Your task to perform on an android device: clear all cookies in the chrome app Image 0: 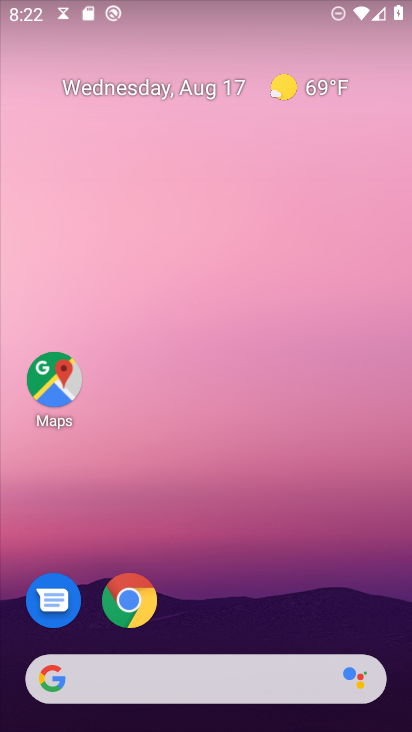
Step 0: press home button
Your task to perform on an android device: clear all cookies in the chrome app Image 1: 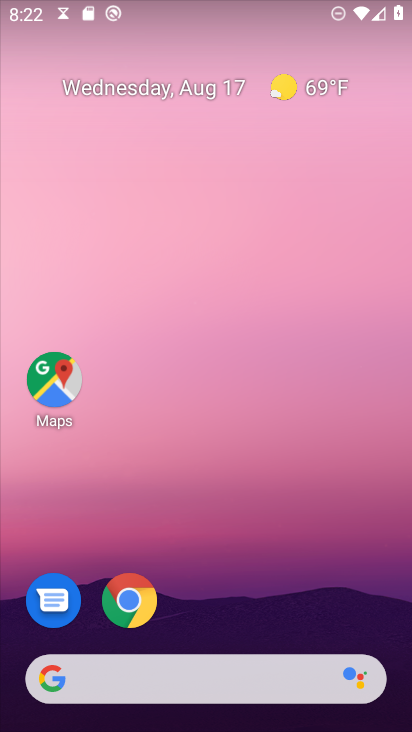
Step 1: click (141, 602)
Your task to perform on an android device: clear all cookies in the chrome app Image 2: 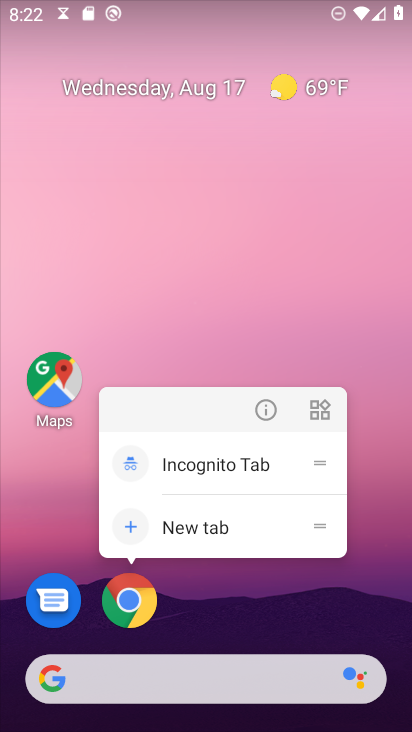
Step 2: click (143, 601)
Your task to perform on an android device: clear all cookies in the chrome app Image 3: 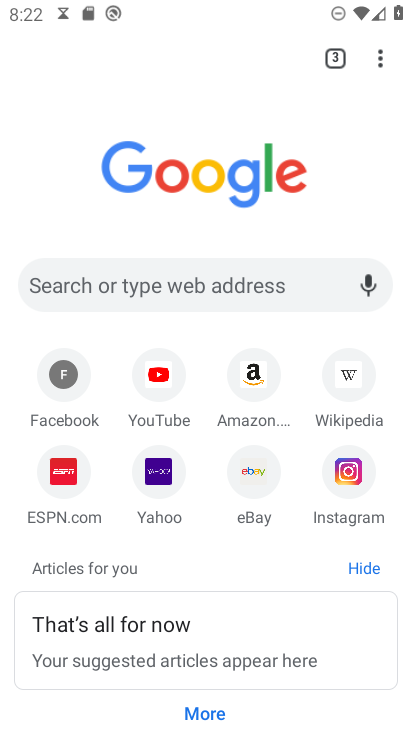
Step 3: drag from (375, 57) to (170, 486)
Your task to perform on an android device: clear all cookies in the chrome app Image 4: 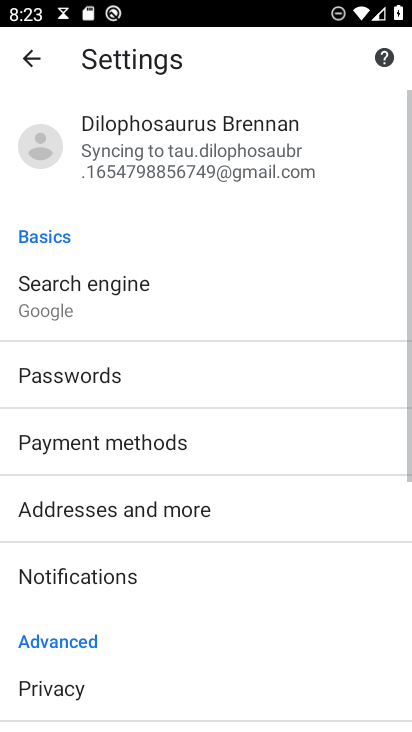
Step 4: drag from (223, 594) to (217, 176)
Your task to perform on an android device: clear all cookies in the chrome app Image 5: 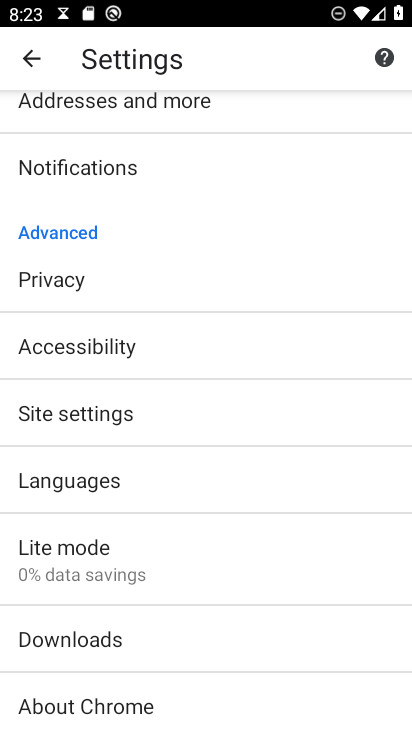
Step 5: click (96, 271)
Your task to perform on an android device: clear all cookies in the chrome app Image 6: 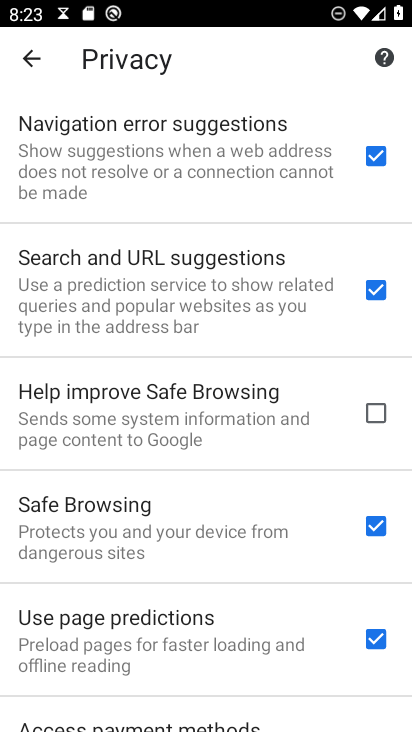
Step 6: drag from (240, 675) to (205, 246)
Your task to perform on an android device: clear all cookies in the chrome app Image 7: 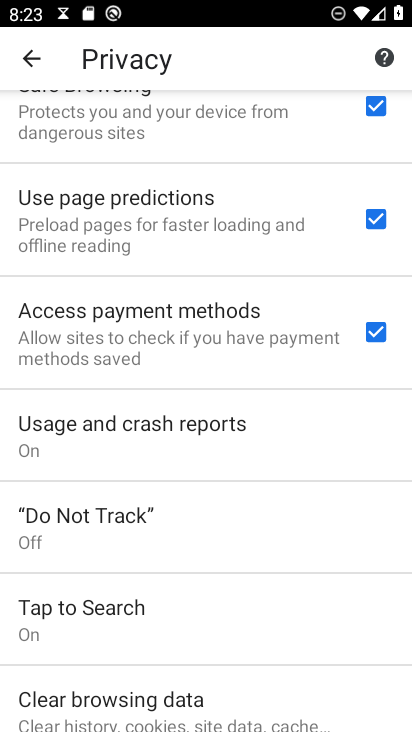
Step 7: click (163, 704)
Your task to perform on an android device: clear all cookies in the chrome app Image 8: 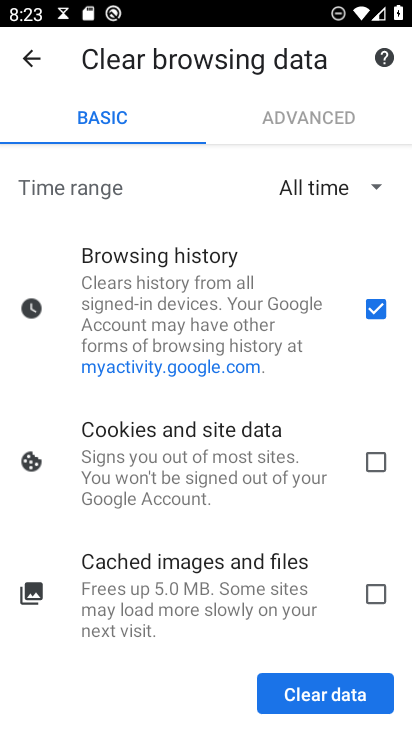
Step 8: click (368, 461)
Your task to perform on an android device: clear all cookies in the chrome app Image 9: 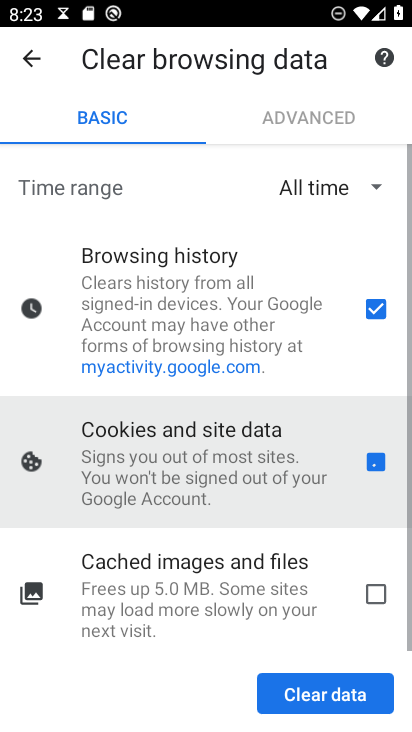
Step 9: click (369, 301)
Your task to perform on an android device: clear all cookies in the chrome app Image 10: 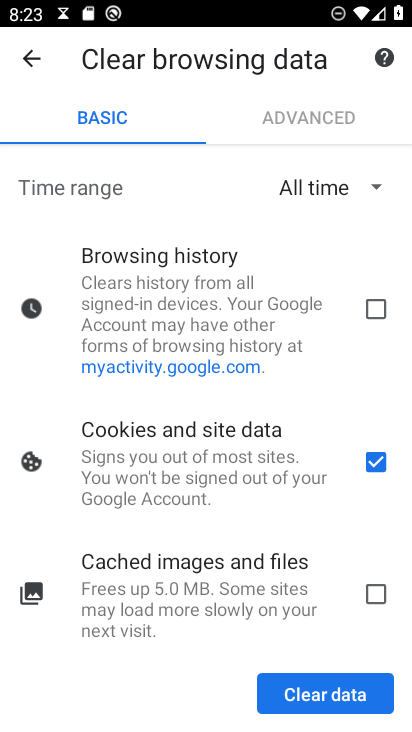
Step 10: click (359, 688)
Your task to perform on an android device: clear all cookies in the chrome app Image 11: 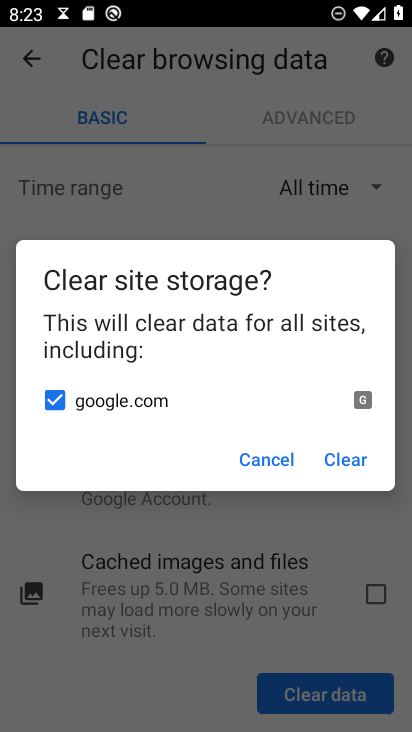
Step 11: click (335, 460)
Your task to perform on an android device: clear all cookies in the chrome app Image 12: 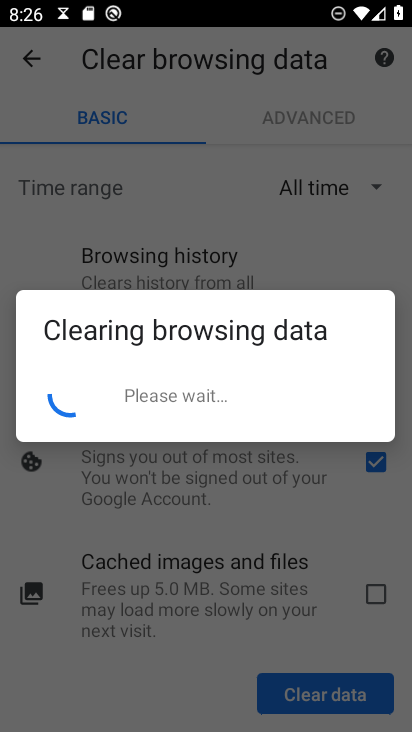
Step 12: click (376, 519)
Your task to perform on an android device: clear all cookies in the chrome app Image 13: 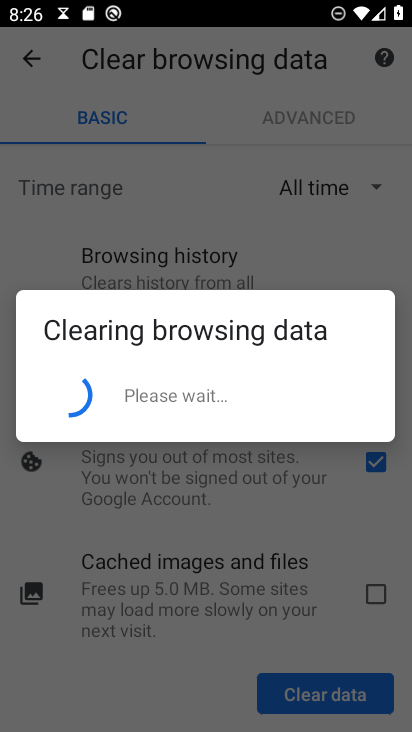
Step 13: click (309, 522)
Your task to perform on an android device: clear all cookies in the chrome app Image 14: 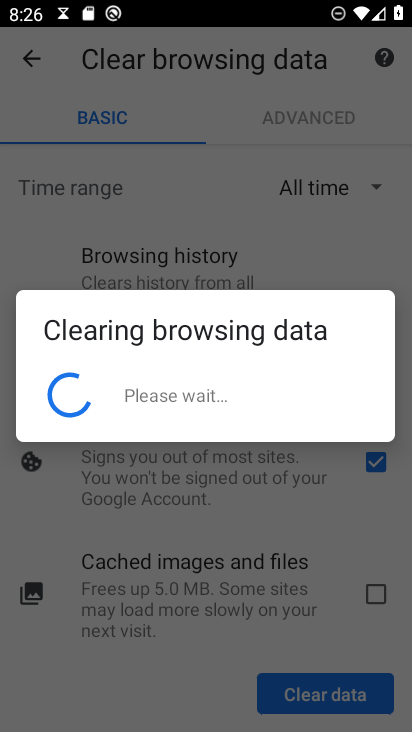
Step 14: click (309, 519)
Your task to perform on an android device: clear all cookies in the chrome app Image 15: 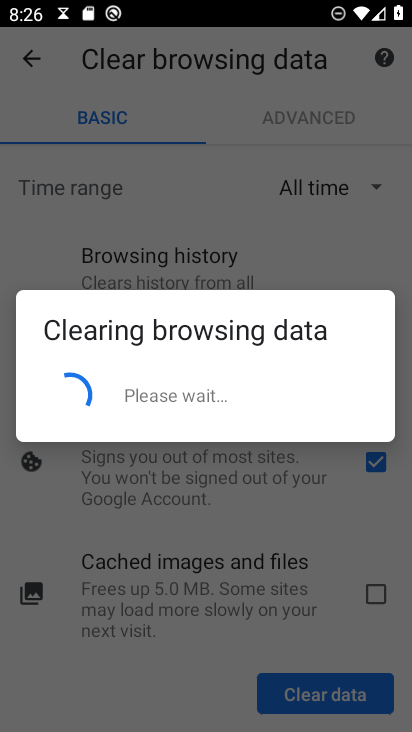
Step 15: click (307, 508)
Your task to perform on an android device: clear all cookies in the chrome app Image 16: 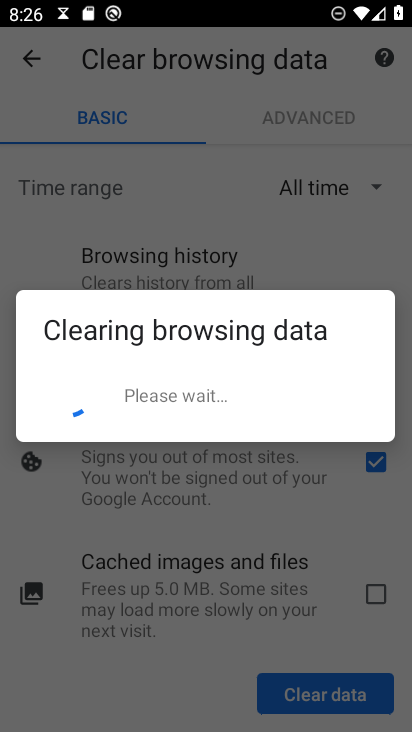
Step 16: click (307, 507)
Your task to perform on an android device: clear all cookies in the chrome app Image 17: 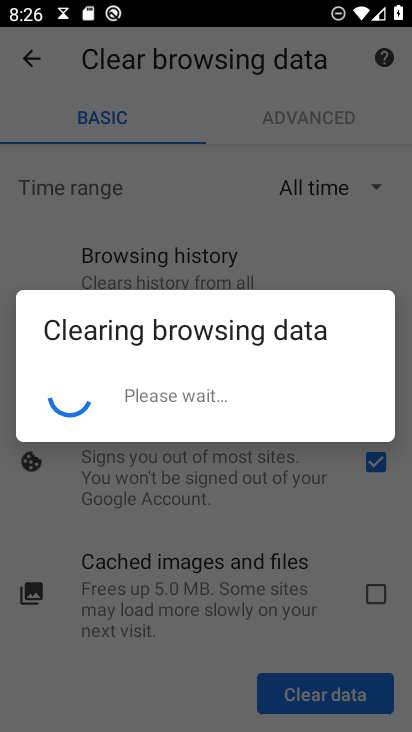
Step 17: task complete